Your task to perform on an android device: Open Google Chrome and open the bookmarks view Image 0: 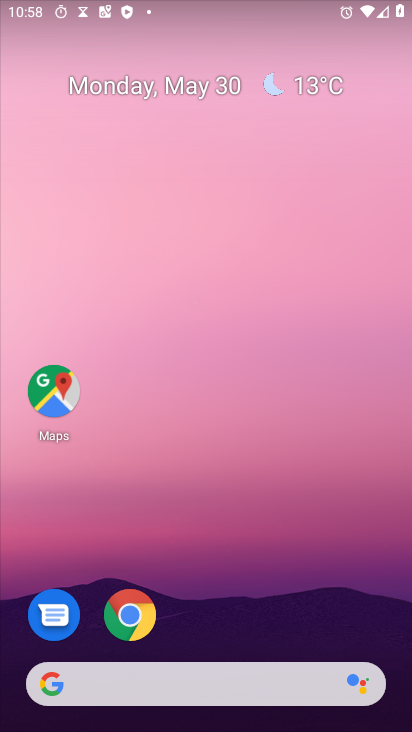
Step 0: drag from (239, 615) to (161, 161)
Your task to perform on an android device: Open Google Chrome and open the bookmarks view Image 1: 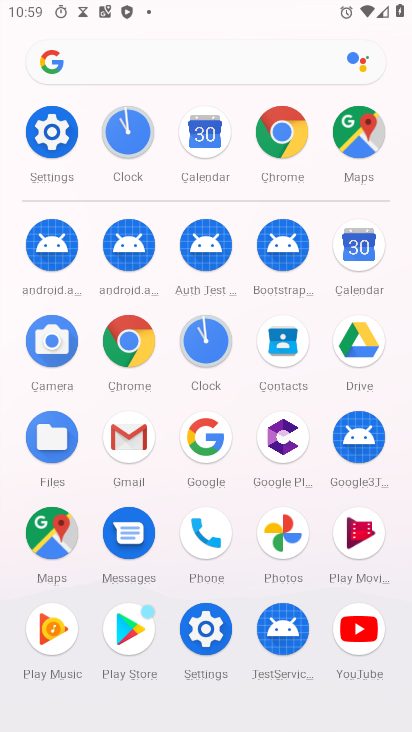
Step 1: click (271, 143)
Your task to perform on an android device: Open Google Chrome and open the bookmarks view Image 2: 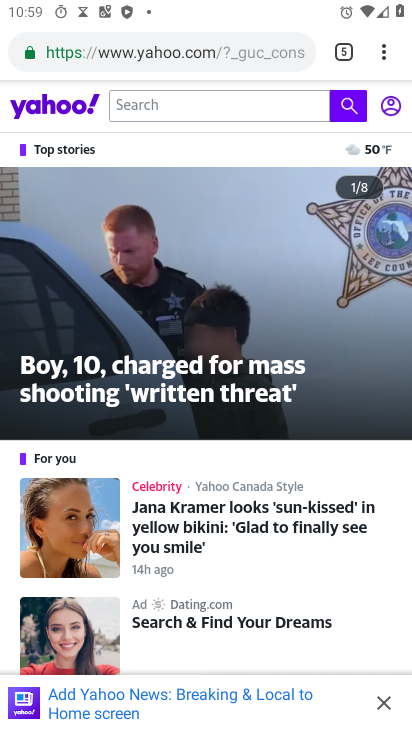
Step 2: task complete